Your task to perform on an android device: Check the weather Image 0: 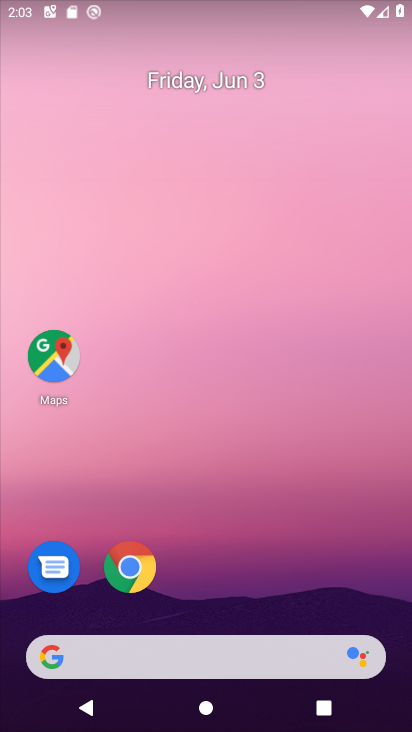
Step 0: click (134, 563)
Your task to perform on an android device: Check the weather Image 1: 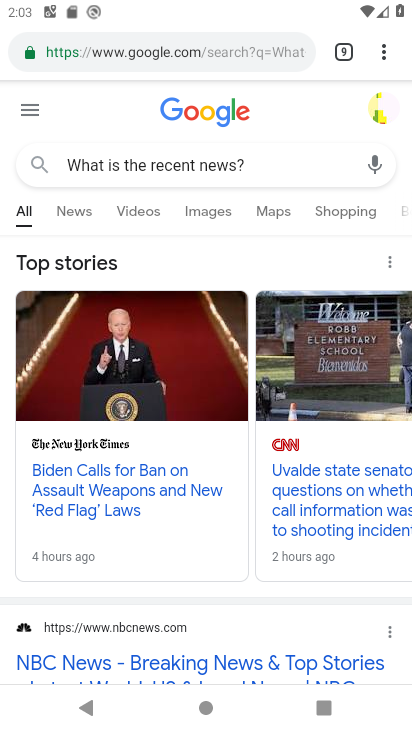
Step 1: click (386, 46)
Your task to perform on an android device: Check the weather Image 2: 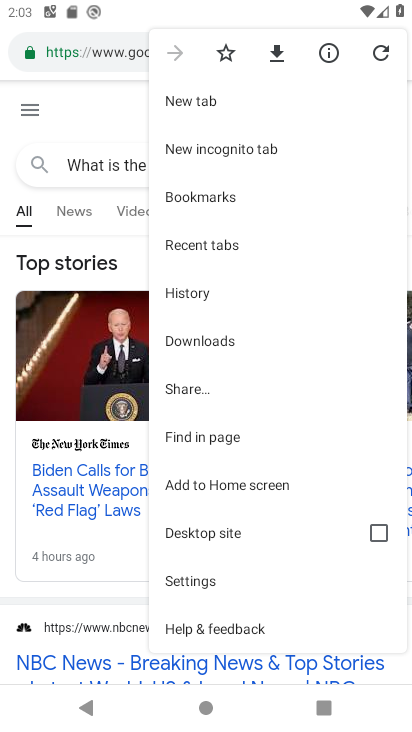
Step 2: click (219, 106)
Your task to perform on an android device: Check the weather Image 3: 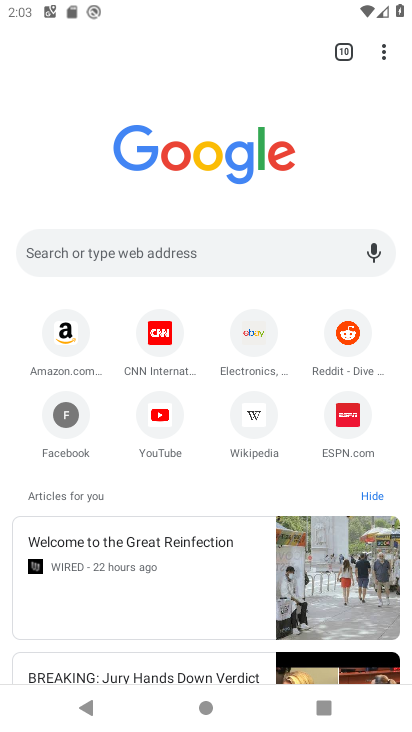
Step 3: click (181, 243)
Your task to perform on an android device: Check the weather Image 4: 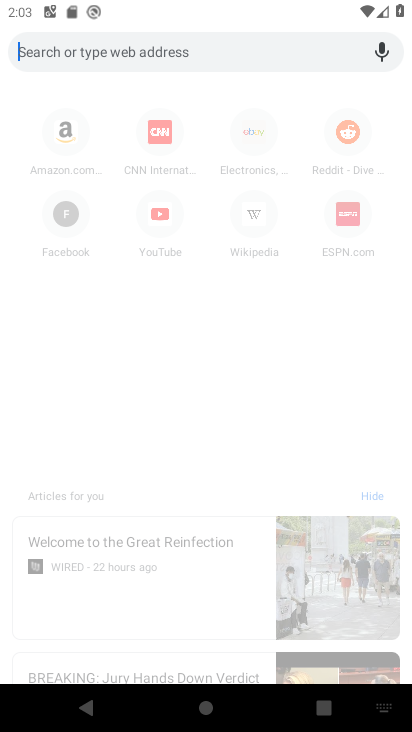
Step 4: type "Check the weather"
Your task to perform on an android device: Check the weather Image 5: 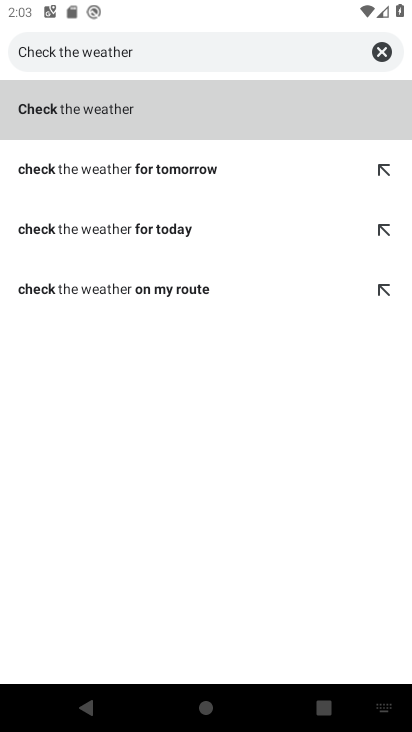
Step 5: click (221, 113)
Your task to perform on an android device: Check the weather Image 6: 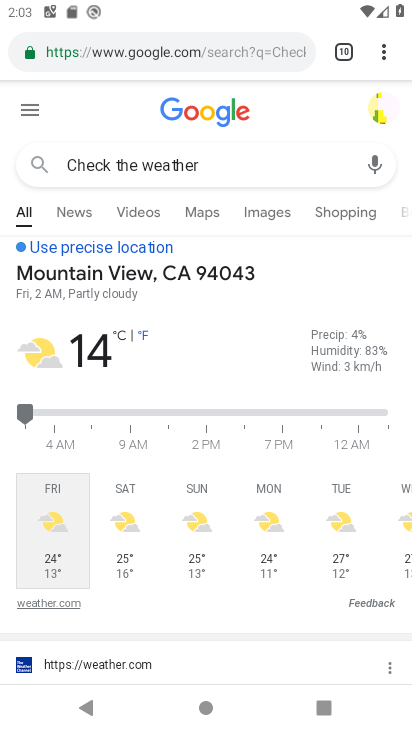
Step 6: task complete